Your task to perform on an android device: turn pop-ups off in chrome Image 0: 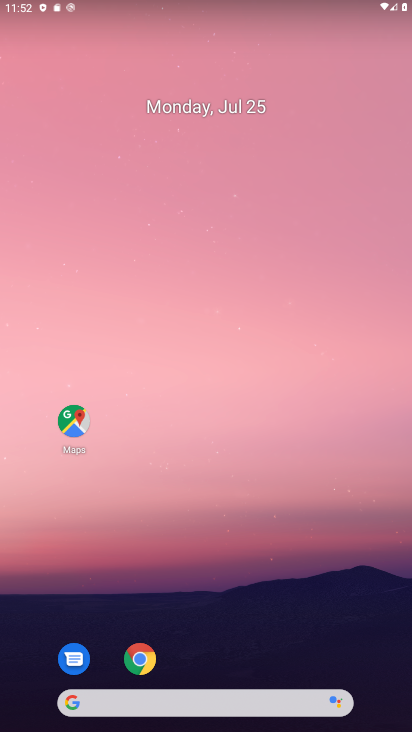
Step 0: drag from (327, 648) to (269, 48)
Your task to perform on an android device: turn pop-ups off in chrome Image 1: 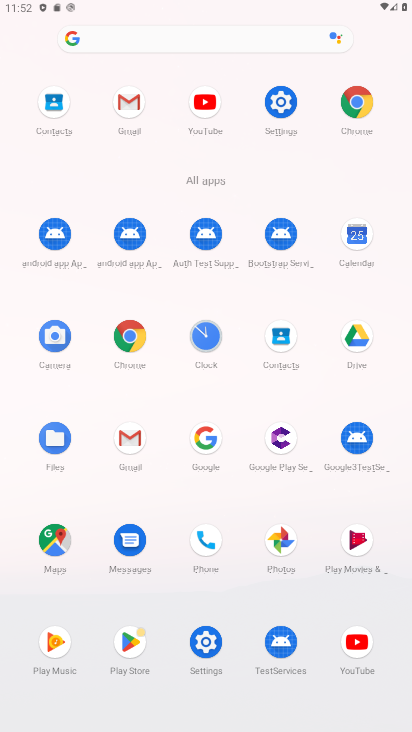
Step 1: click (339, 91)
Your task to perform on an android device: turn pop-ups off in chrome Image 2: 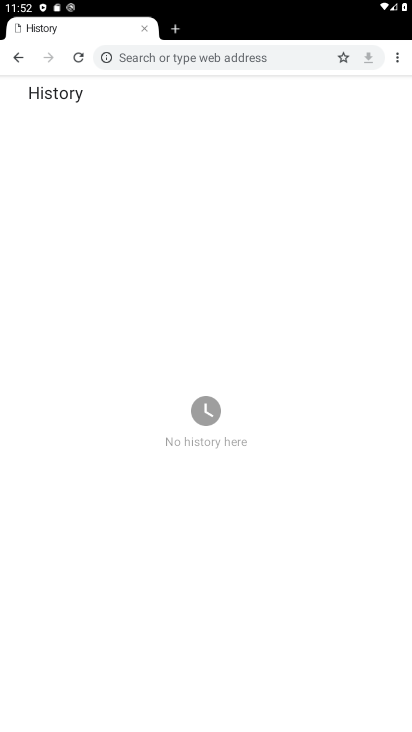
Step 2: drag from (404, 61) to (289, 296)
Your task to perform on an android device: turn pop-ups off in chrome Image 3: 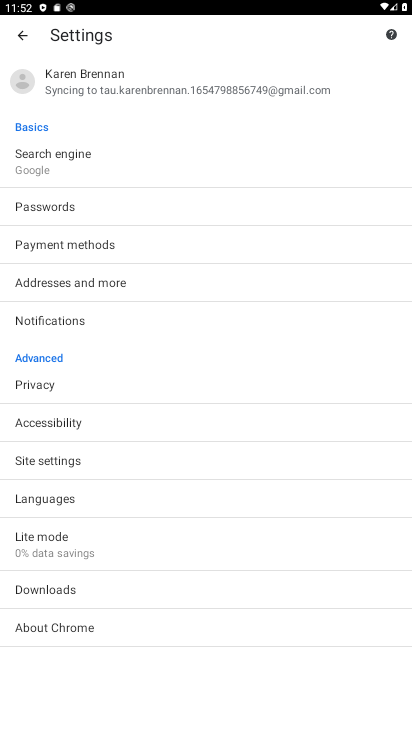
Step 3: click (40, 466)
Your task to perform on an android device: turn pop-ups off in chrome Image 4: 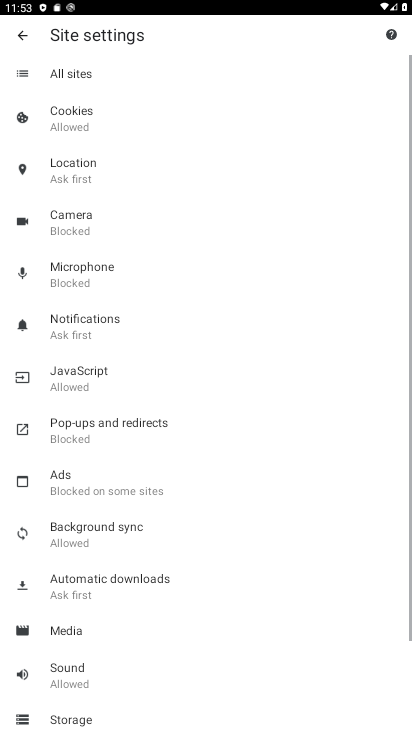
Step 4: click (35, 415)
Your task to perform on an android device: turn pop-ups off in chrome Image 5: 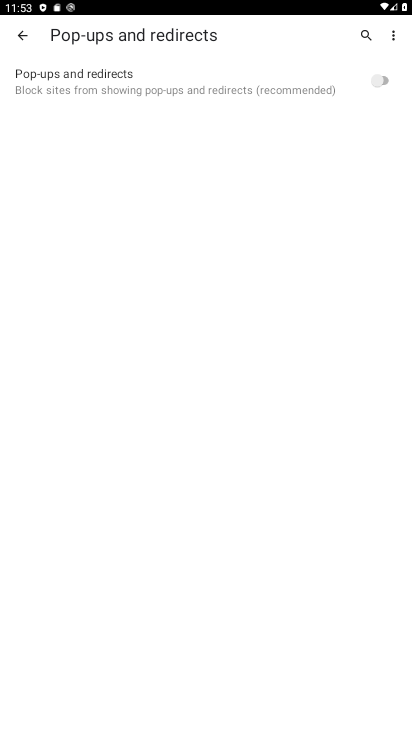
Step 5: task complete